Your task to perform on an android device: set default search engine in the chrome app Image 0: 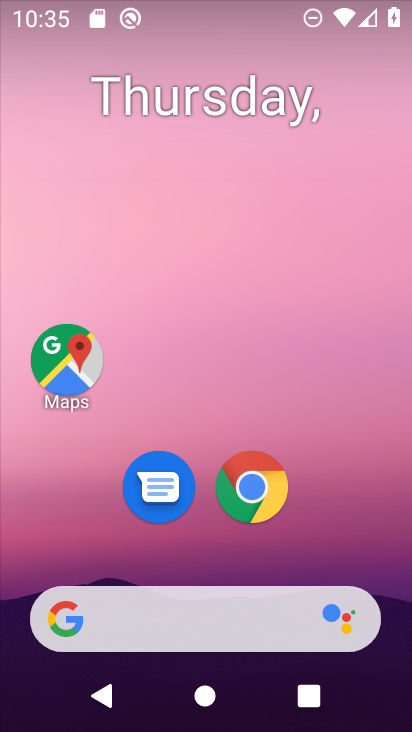
Step 0: click (267, 494)
Your task to perform on an android device: set default search engine in the chrome app Image 1: 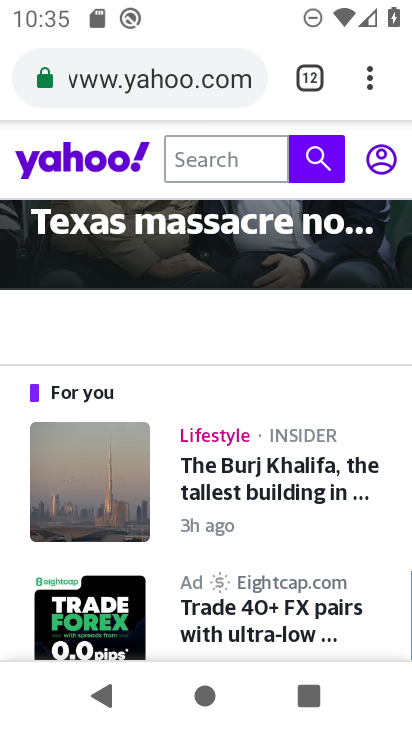
Step 1: click (371, 81)
Your task to perform on an android device: set default search engine in the chrome app Image 2: 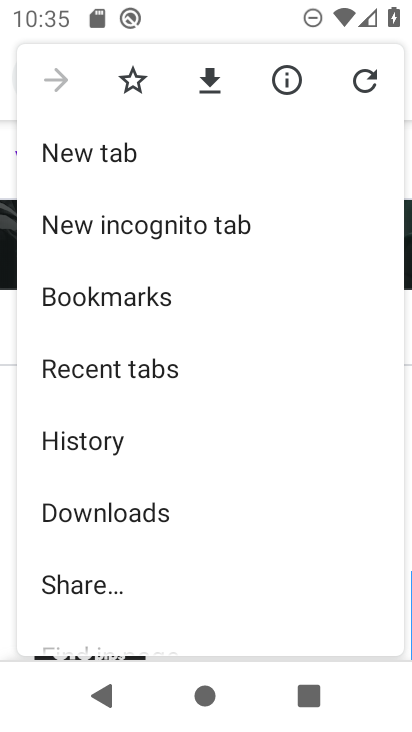
Step 2: drag from (153, 504) to (130, 179)
Your task to perform on an android device: set default search engine in the chrome app Image 3: 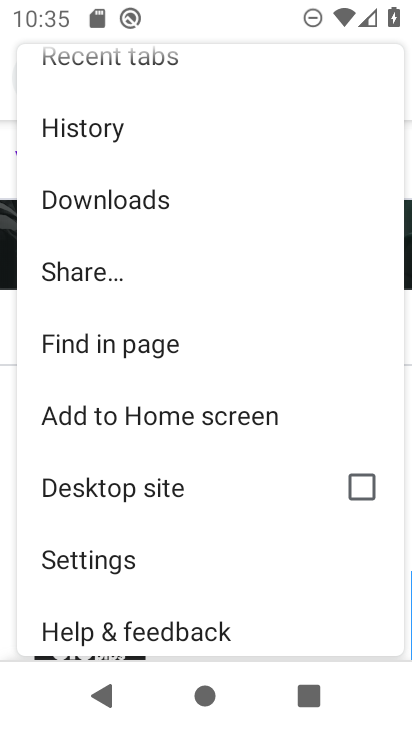
Step 3: click (87, 563)
Your task to perform on an android device: set default search engine in the chrome app Image 4: 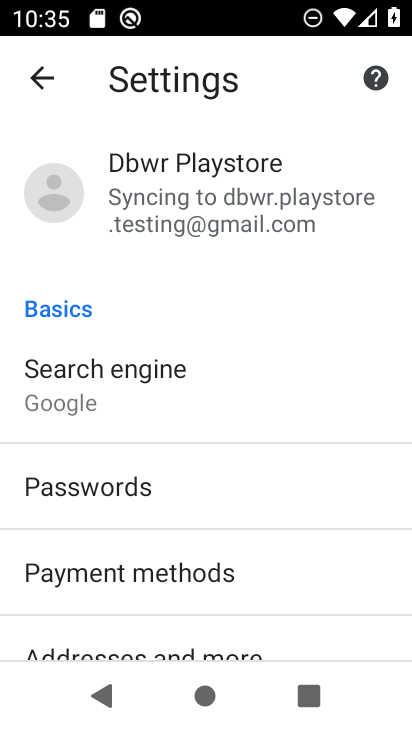
Step 4: click (138, 406)
Your task to perform on an android device: set default search engine in the chrome app Image 5: 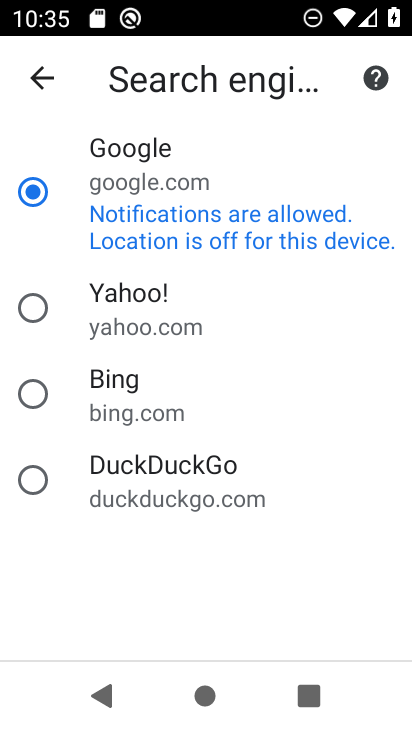
Step 5: click (128, 477)
Your task to perform on an android device: set default search engine in the chrome app Image 6: 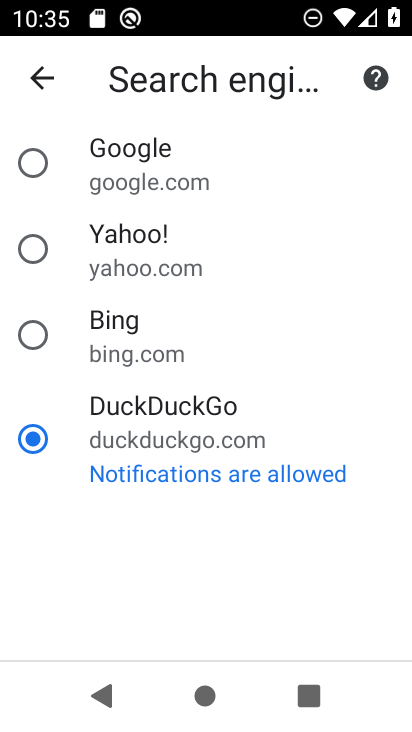
Step 6: task complete